Your task to perform on an android device: Open my contact list Image 0: 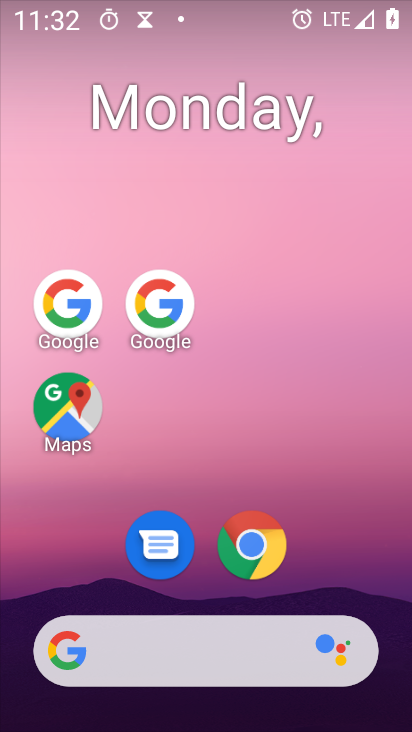
Step 0: press home button
Your task to perform on an android device: Open my contact list Image 1: 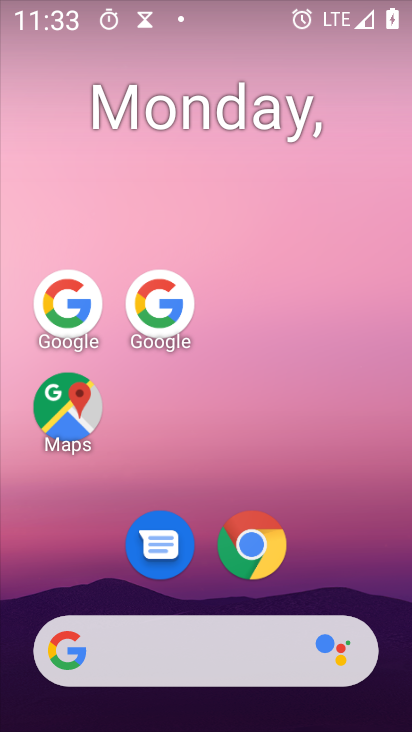
Step 1: drag from (159, 325) to (294, 153)
Your task to perform on an android device: Open my contact list Image 2: 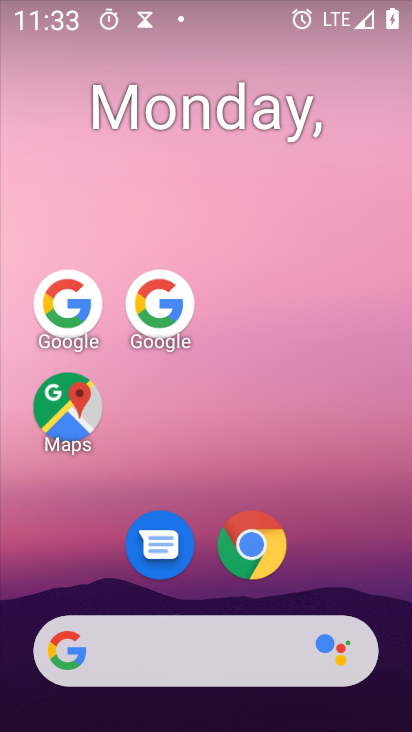
Step 2: drag from (207, 636) to (302, 114)
Your task to perform on an android device: Open my contact list Image 3: 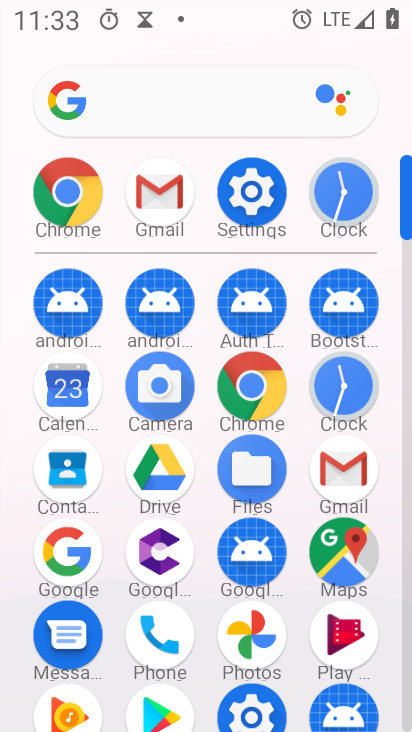
Step 3: click (69, 473)
Your task to perform on an android device: Open my contact list Image 4: 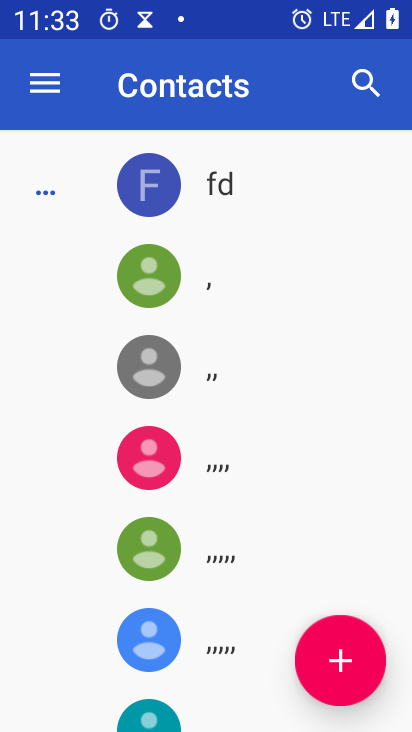
Step 4: task complete